Your task to perform on an android device: open a bookmark in the chrome app Image 0: 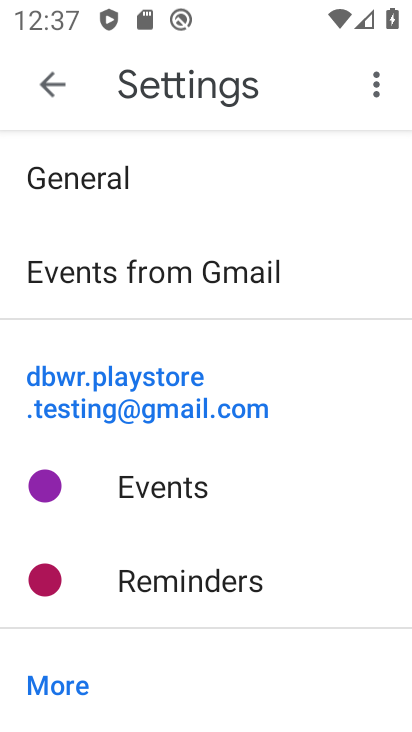
Step 0: press home button
Your task to perform on an android device: open a bookmark in the chrome app Image 1: 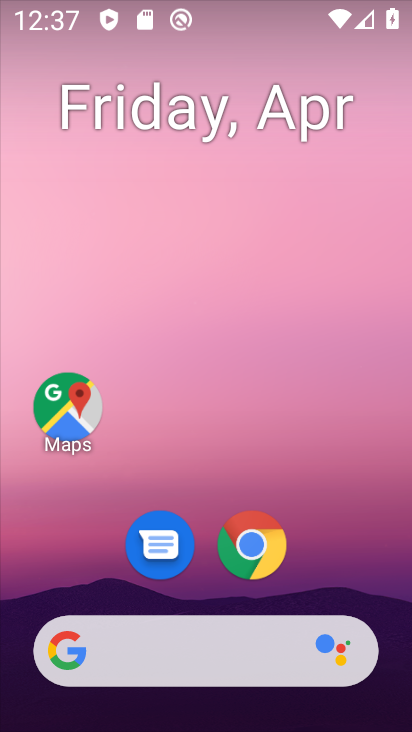
Step 1: click (257, 542)
Your task to perform on an android device: open a bookmark in the chrome app Image 2: 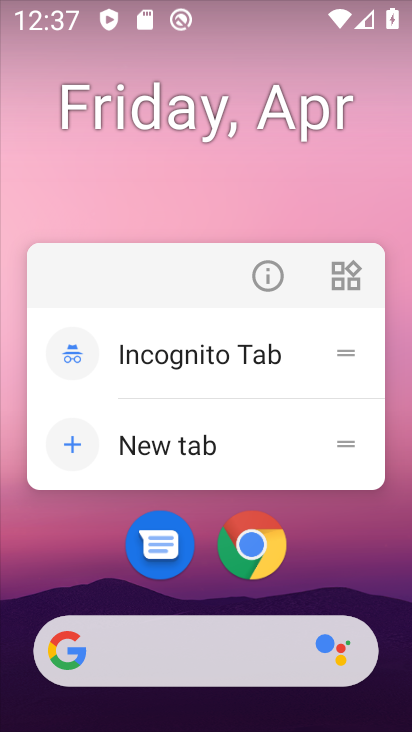
Step 2: click (266, 549)
Your task to perform on an android device: open a bookmark in the chrome app Image 3: 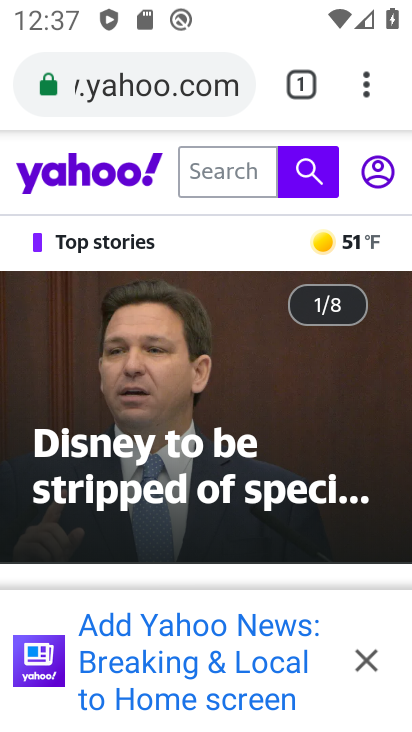
Step 3: click (365, 91)
Your task to perform on an android device: open a bookmark in the chrome app Image 4: 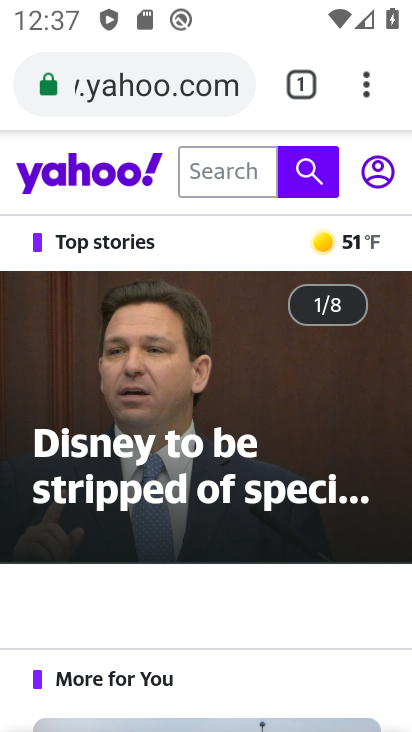
Step 4: click (373, 88)
Your task to perform on an android device: open a bookmark in the chrome app Image 5: 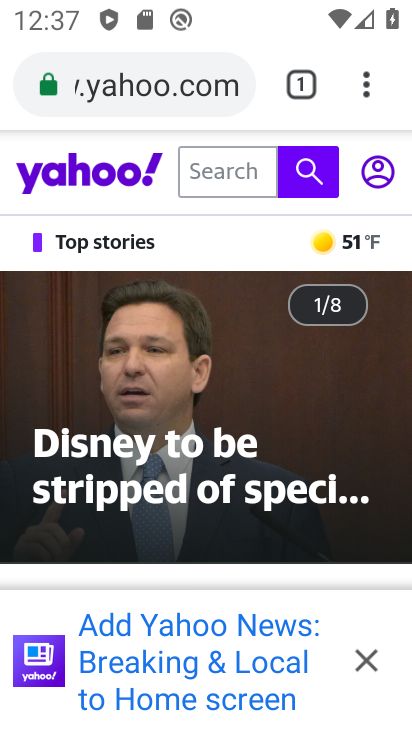
Step 5: click (373, 88)
Your task to perform on an android device: open a bookmark in the chrome app Image 6: 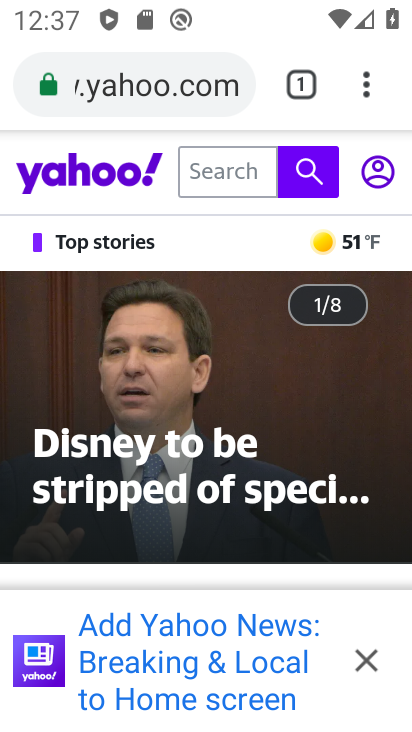
Step 6: click (358, 82)
Your task to perform on an android device: open a bookmark in the chrome app Image 7: 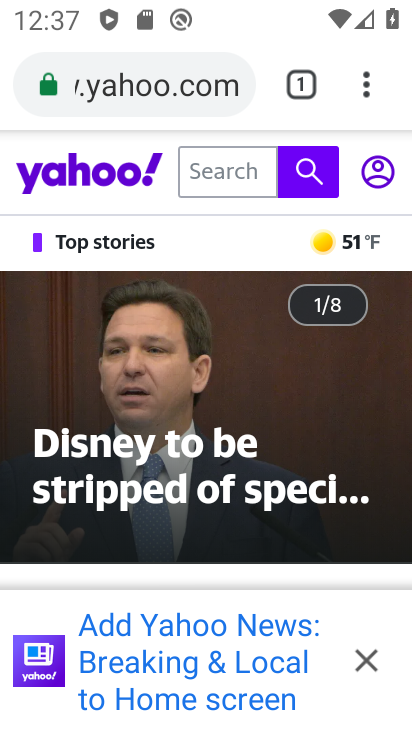
Step 7: click (358, 82)
Your task to perform on an android device: open a bookmark in the chrome app Image 8: 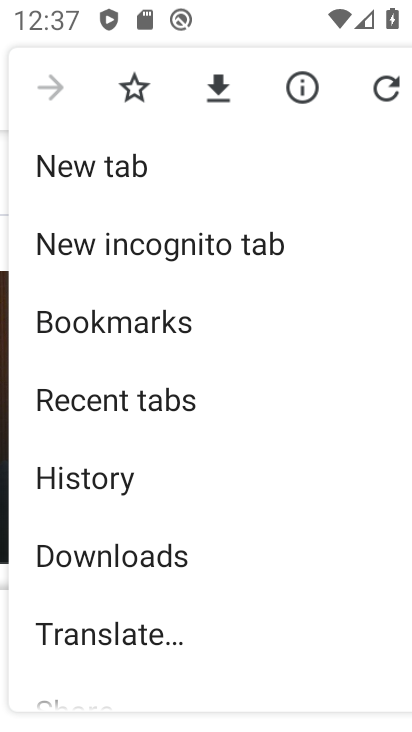
Step 8: click (198, 318)
Your task to perform on an android device: open a bookmark in the chrome app Image 9: 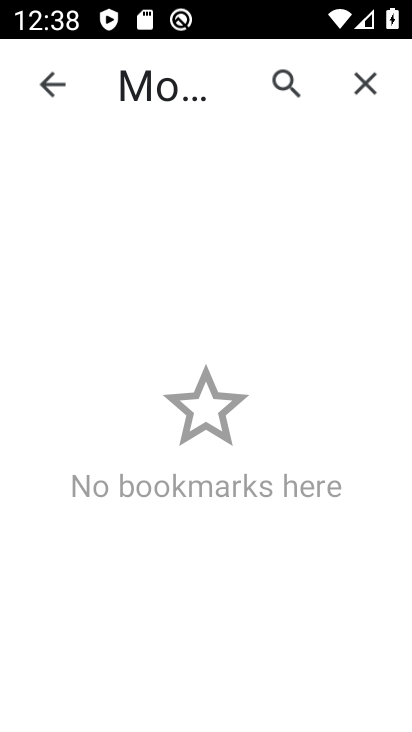
Step 9: task complete